Your task to perform on an android device: Search for the best rated mechanical keyboard on Amazon. Image 0: 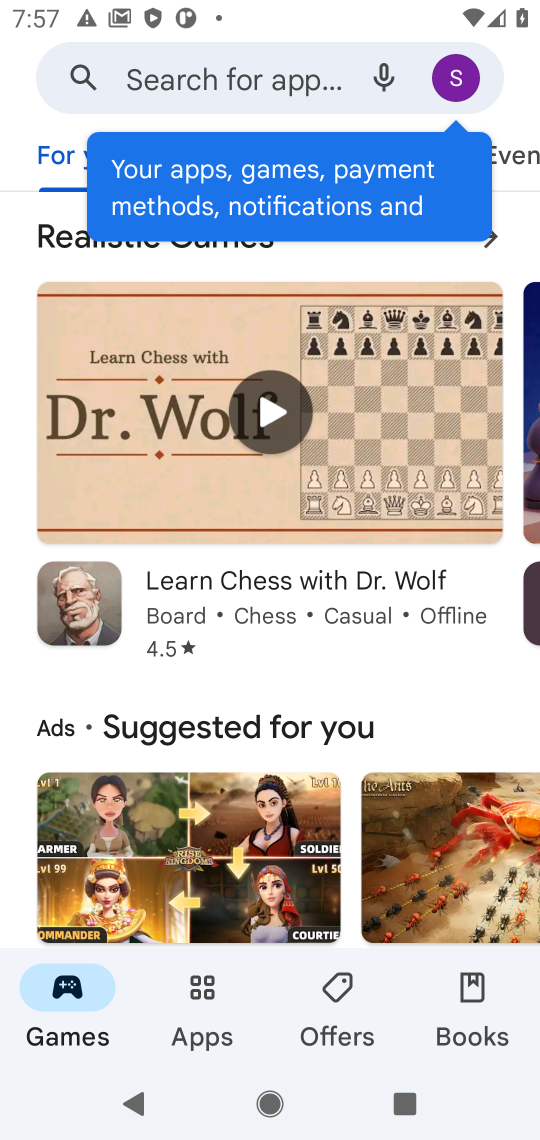
Step 0: press home button
Your task to perform on an android device: Search for the best rated mechanical keyboard on Amazon. Image 1: 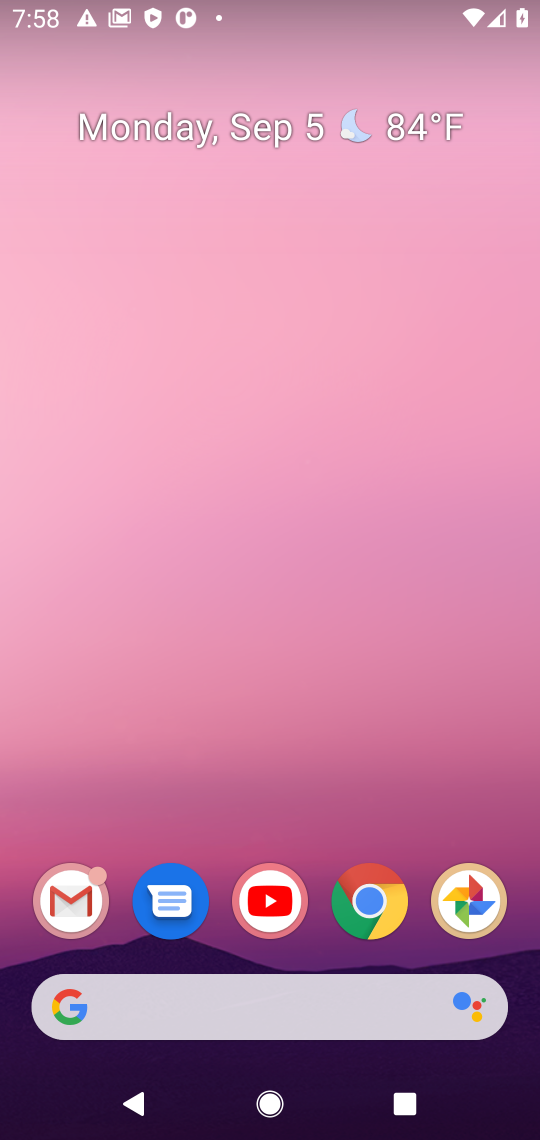
Step 1: click (429, 900)
Your task to perform on an android device: Search for the best rated mechanical keyboard on Amazon. Image 2: 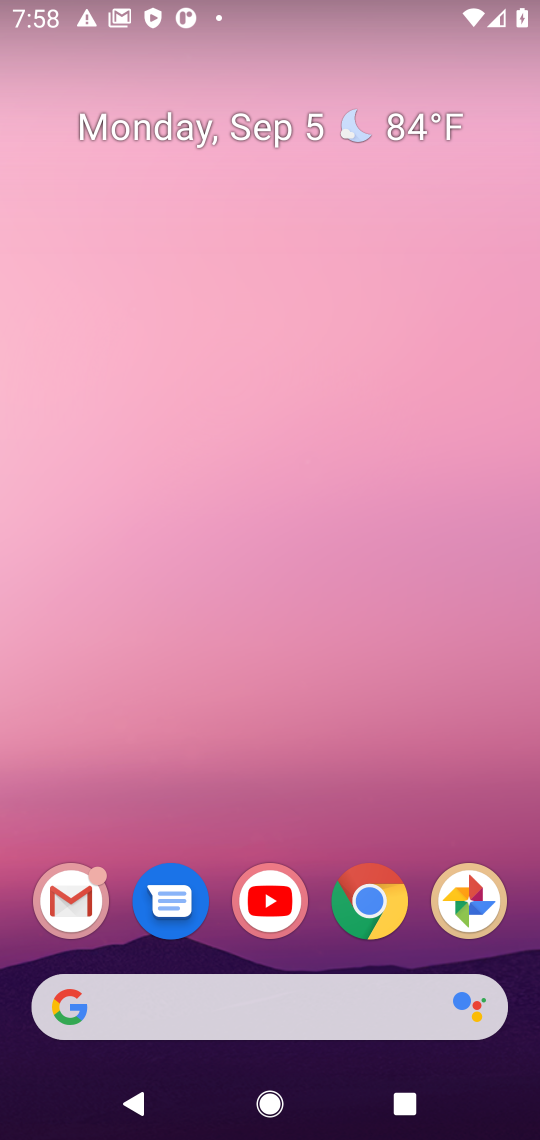
Step 2: click (400, 906)
Your task to perform on an android device: Search for the best rated mechanical keyboard on Amazon. Image 3: 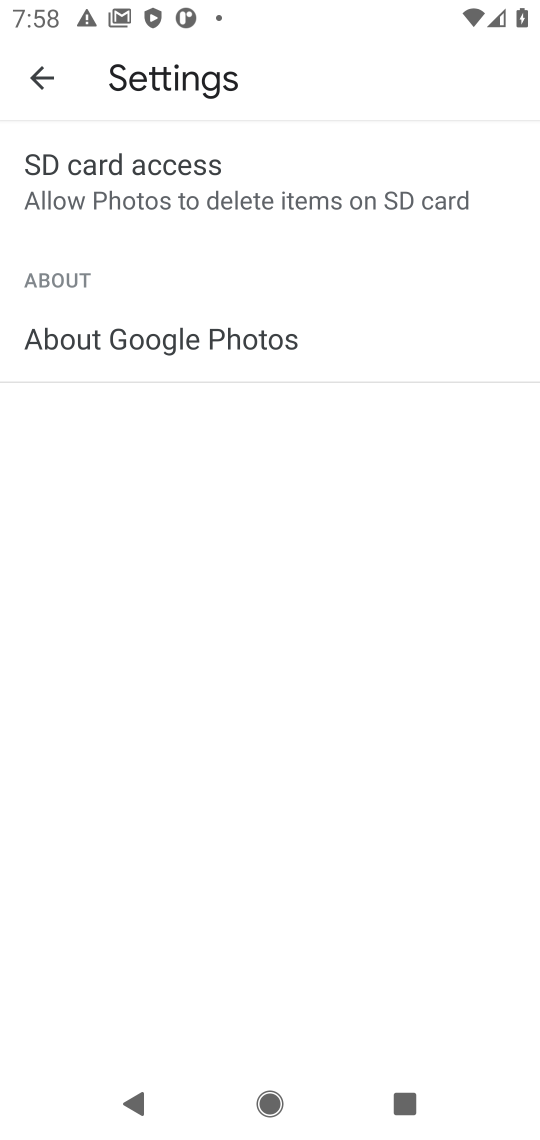
Step 3: press home button
Your task to perform on an android device: Search for the best rated mechanical keyboard on Amazon. Image 4: 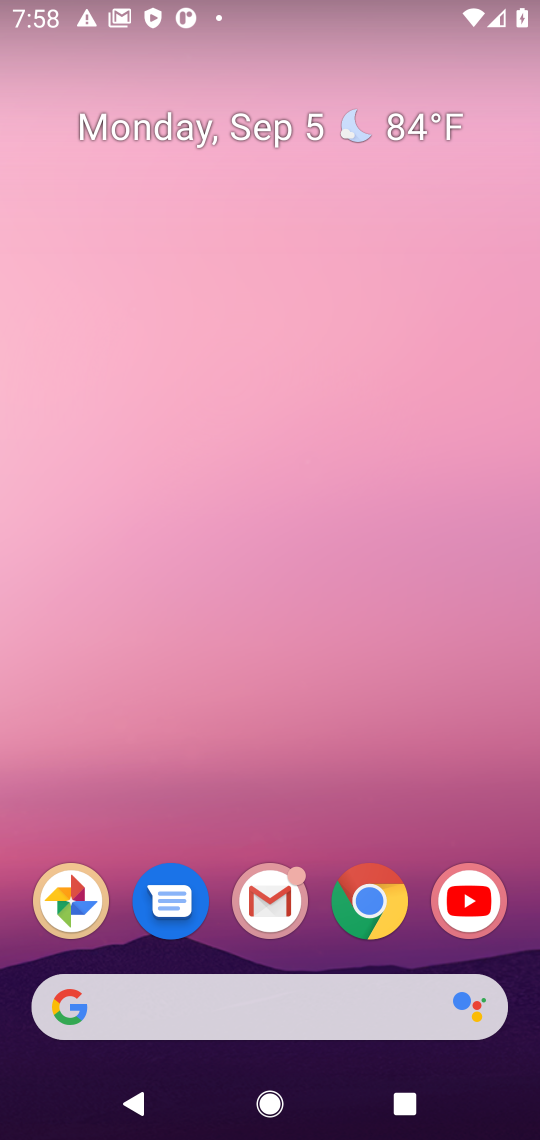
Step 4: click (357, 925)
Your task to perform on an android device: Search for the best rated mechanical keyboard on Amazon. Image 5: 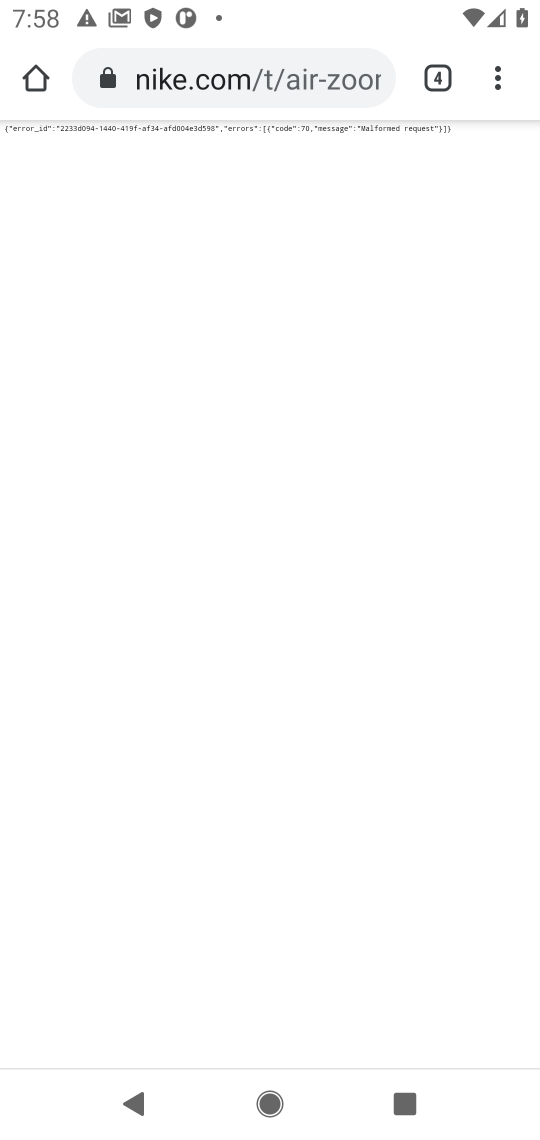
Step 5: click (291, 78)
Your task to perform on an android device: Search for the best rated mechanical keyboard on Amazon. Image 6: 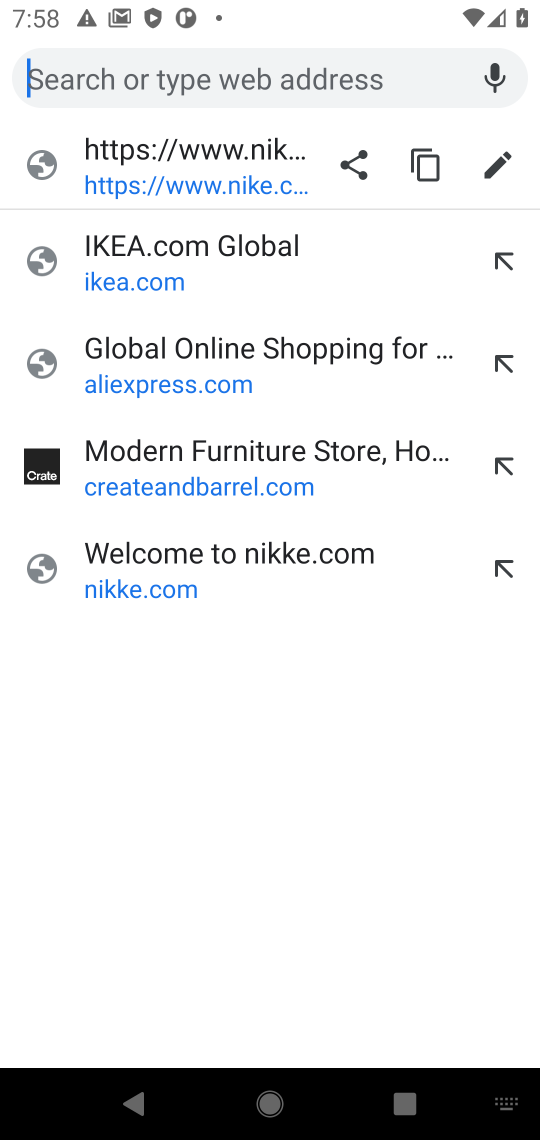
Step 6: type "amazone.com"
Your task to perform on an android device: Search for the best rated mechanical keyboard on Amazon. Image 7: 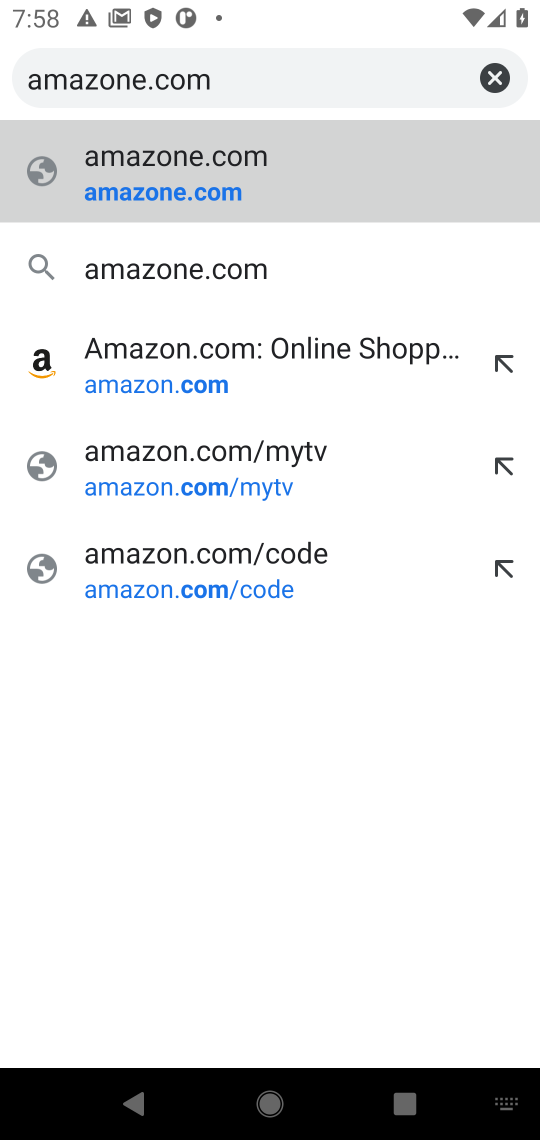
Step 7: click (215, 186)
Your task to perform on an android device: Search for the best rated mechanical keyboard on Amazon. Image 8: 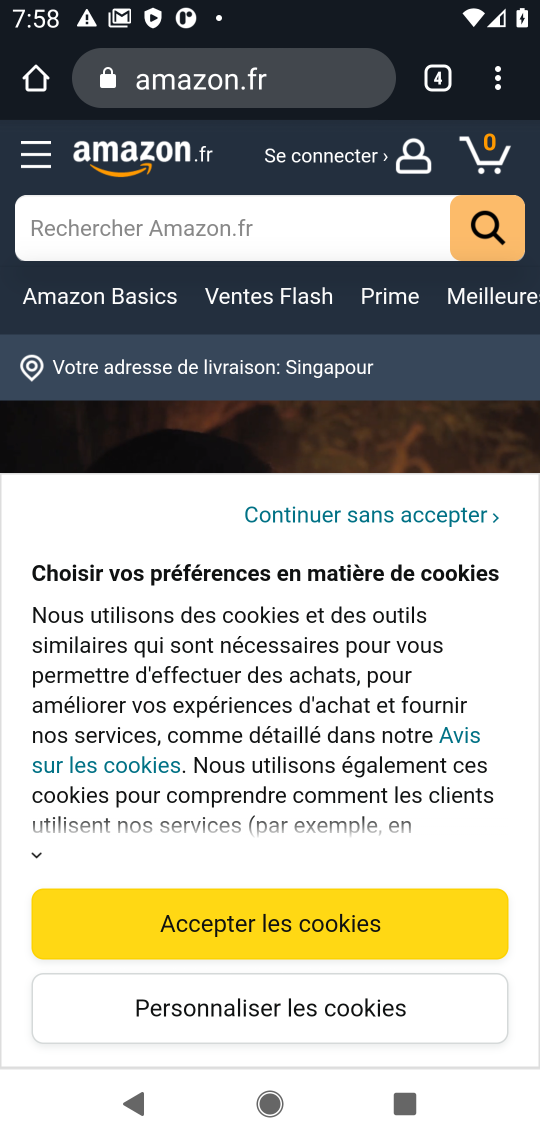
Step 8: click (253, 216)
Your task to perform on an android device: Search for the best rated mechanical keyboard on Amazon. Image 9: 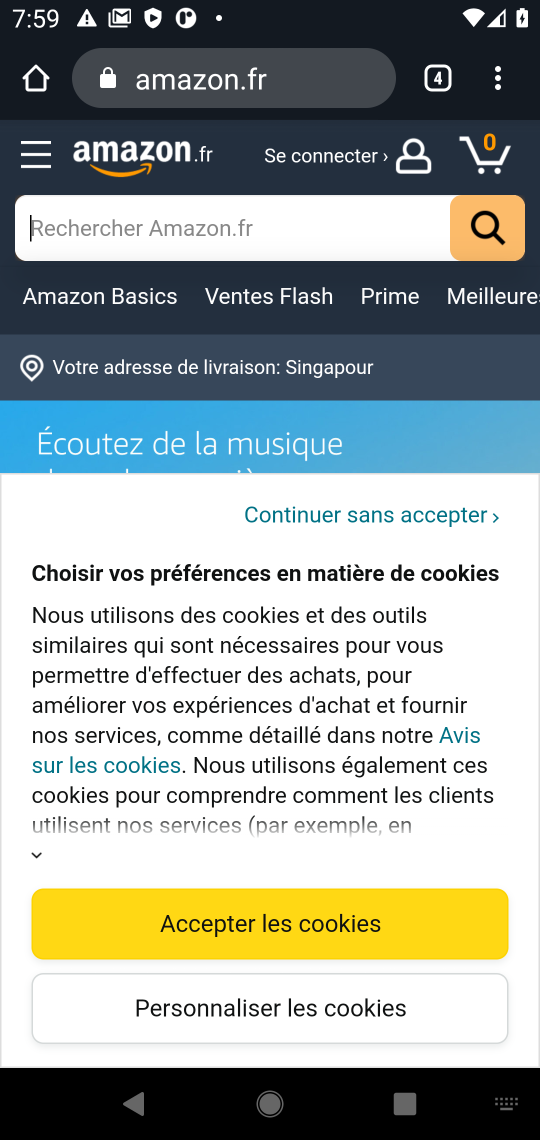
Step 9: type "mechnical keyboard"
Your task to perform on an android device: Search for the best rated mechanical keyboard on Amazon. Image 10: 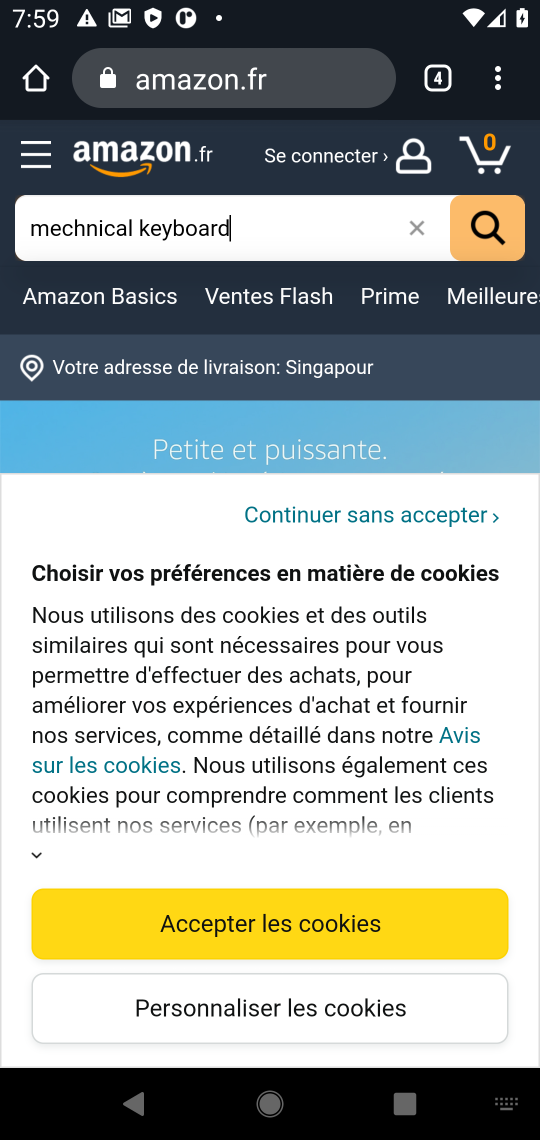
Step 10: click (474, 221)
Your task to perform on an android device: Search for the best rated mechanical keyboard on Amazon. Image 11: 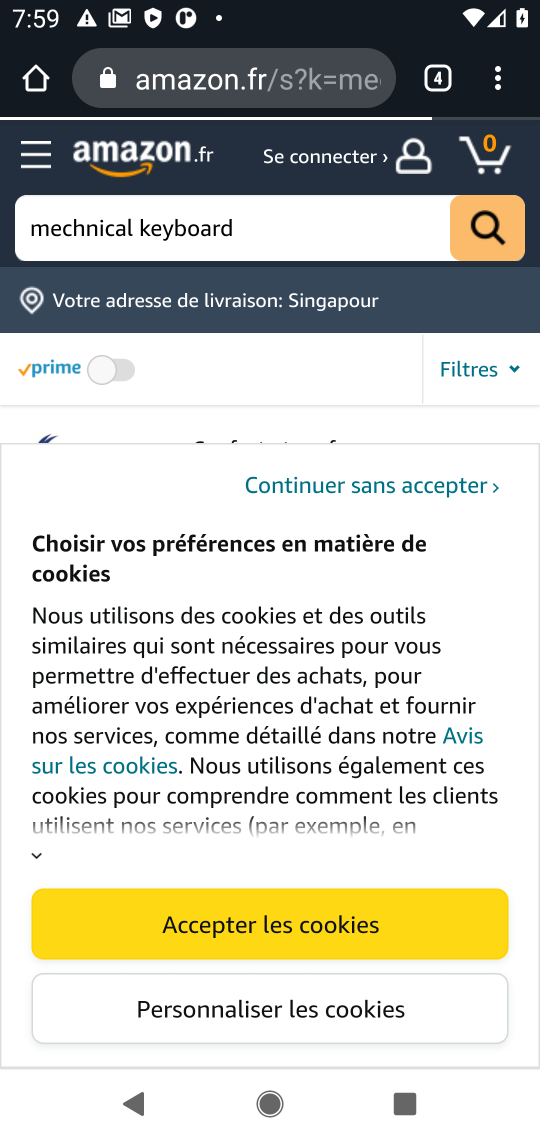
Step 11: click (253, 960)
Your task to perform on an android device: Search for the best rated mechanical keyboard on Amazon. Image 12: 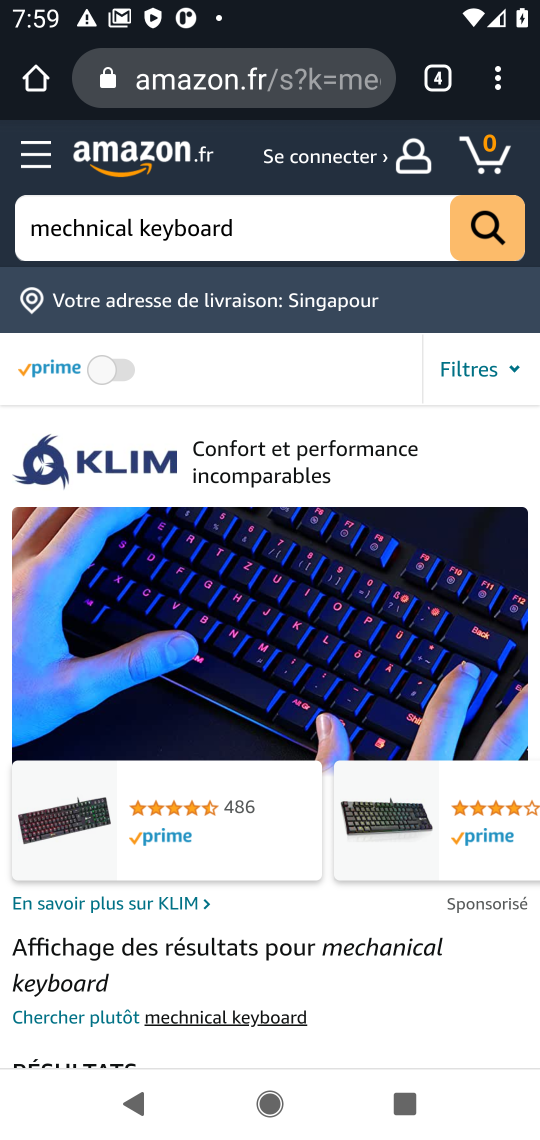
Step 12: task complete